Your task to perform on an android device: Open calendar and show me the fourth week of next month Image 0: 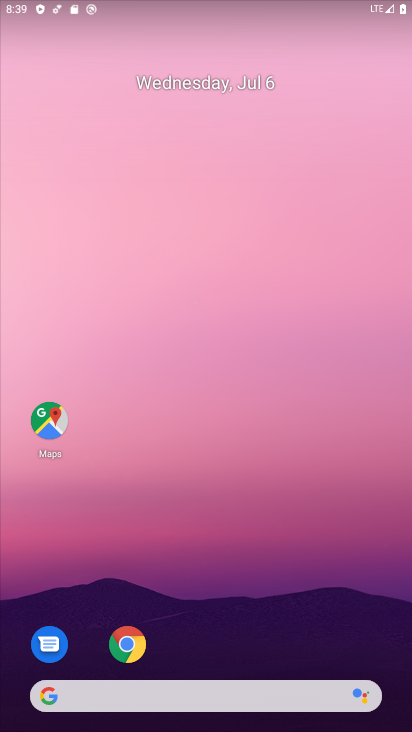
Step 0: click (199, 60)
Your task to perform on an android device: Open calendar and show me the fourth week of next month Image 1: 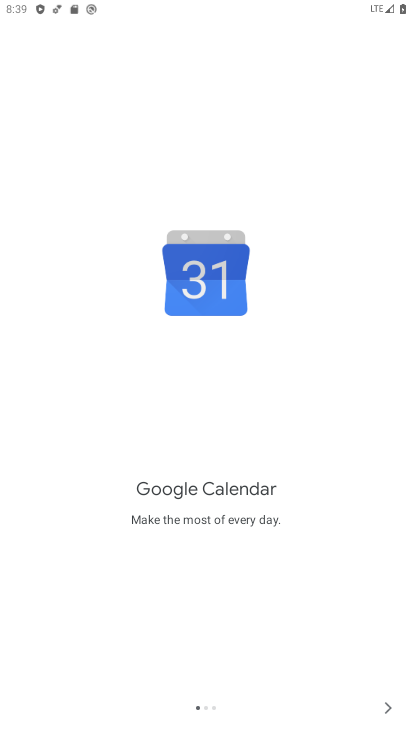
Step 1: click (386, 718)
Your task to perform on an android device: Open calendar and show me the fourth week of next month Image 2: 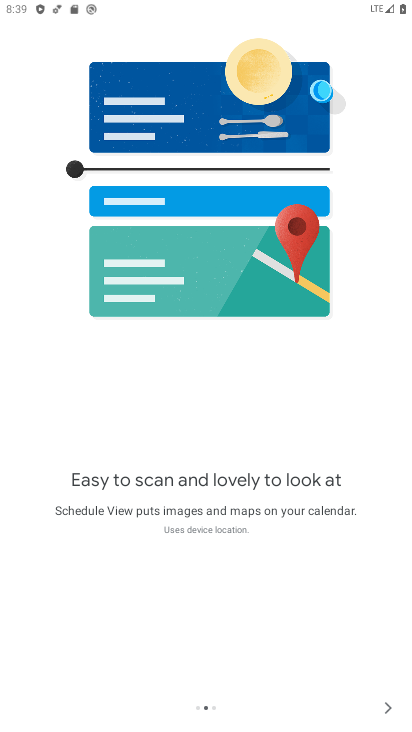
Step 2: click (388, 717)
Your task to perform on an android device: Open calendar and show me the fourth week of next month Image 3: 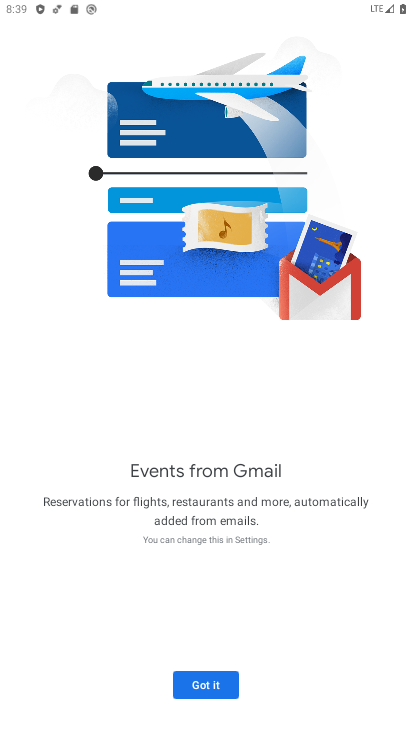
Step 3: click (198, 687)
Your task to perform on an android device: Open calendar and show me the fourth week of next month Image 4: 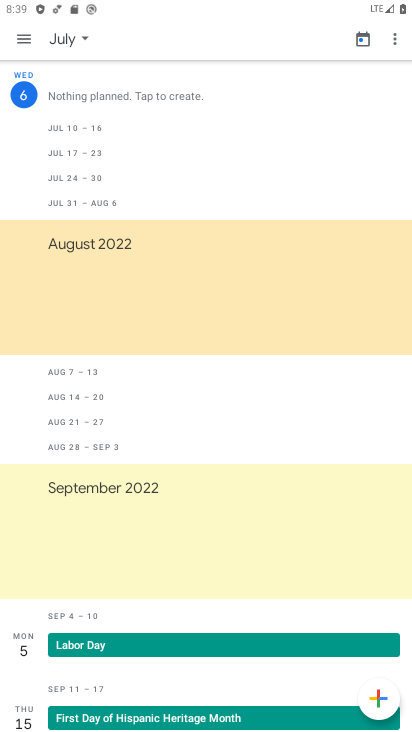
Step 4: click (72, 45)
Your task to perform on an android device: Open calendar and show me the fourth week of next month Image 5: 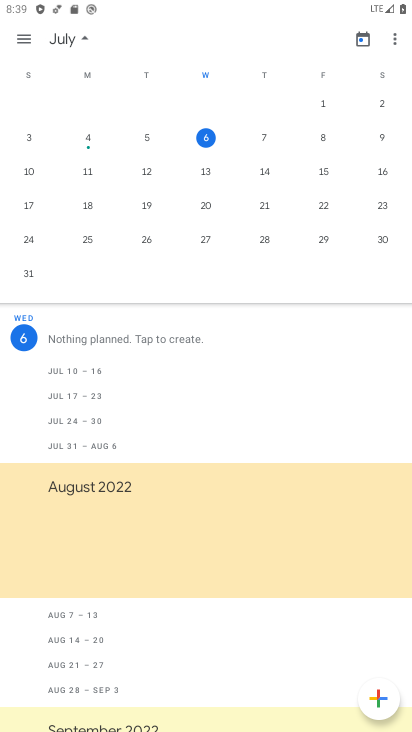
Step 5: drag from (275, 201) to (1, 190)
Your task to perform on an android device: Open calendar and show me the fourth week of next month Image 6: 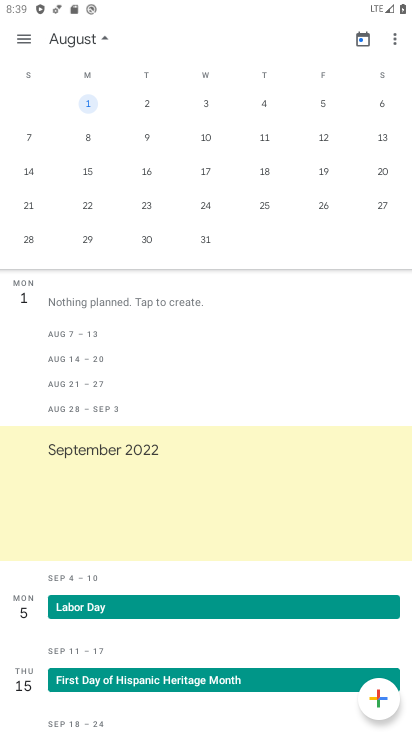
Step 6: click (27, 202)
Your task to perform on an android device: Open calendar and show me the fourth week of next month Image 7: 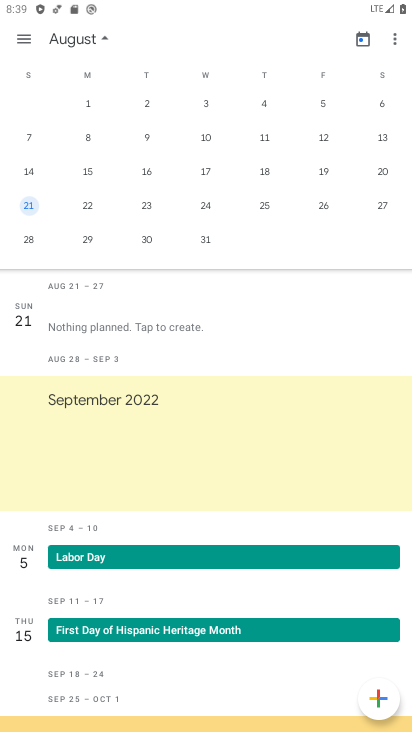
Step 7: task complete